Your task to perform on an android device: turn off notifications settings in the gmail app Image 0: 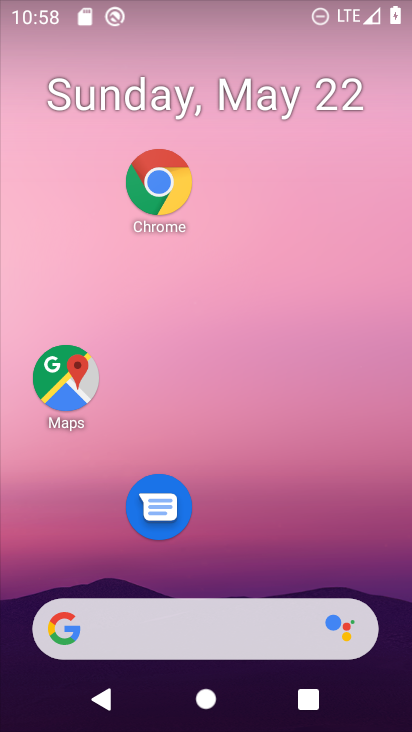
Step 0: drag from (174, 680) to (231, 9)
Your task to perform on an android device: turn off notifications settings in the gmail app Image 1: 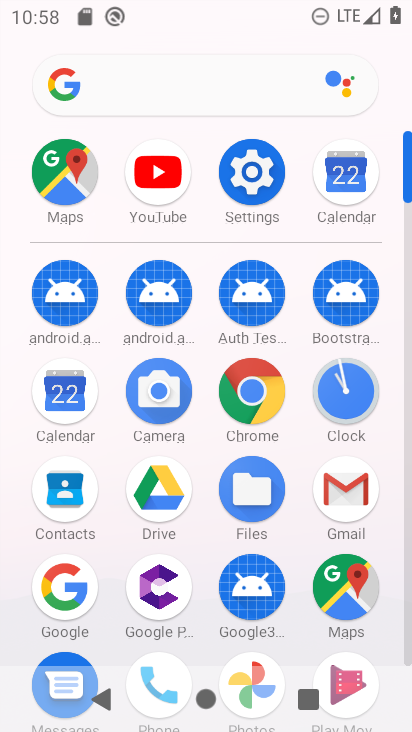
Step 1: click (331, 477)
Your task to perform on an android device: turn off notifications settings in the gmail app Image 2: 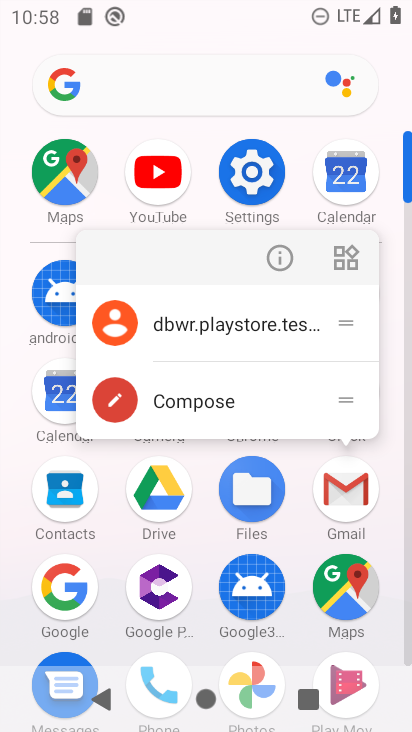
Step 2: click (268, 250)
Your task to perform on an android device: turn off notifications settings in the gmail app Image 3: 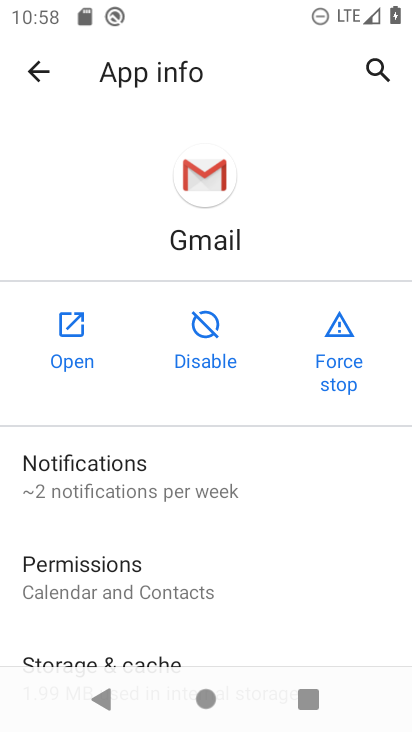
Step 3: click (185, 487)
Your task to perform on an android device: turn off notifications settings in the gmail app Image 4: 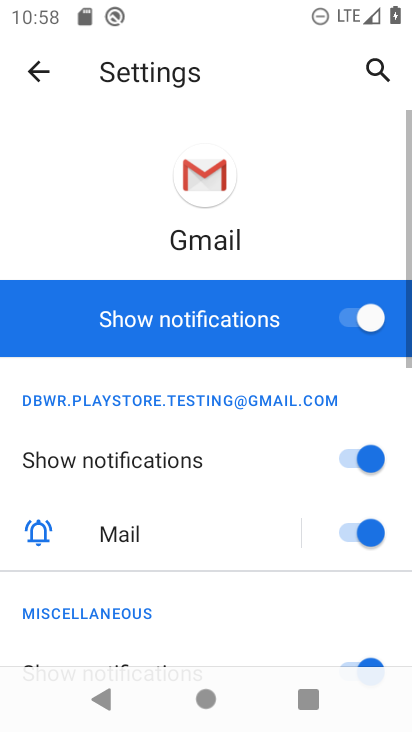
Step 4: click (376, 324)
Your task to perform on an android device: turn off notifications settings in the gmail app Image 5: 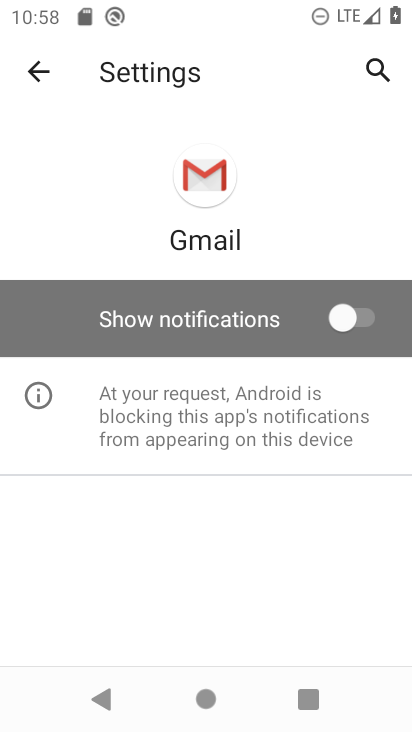
Step 5: task complete